Your task to perform on an android device: check android version Image 0: 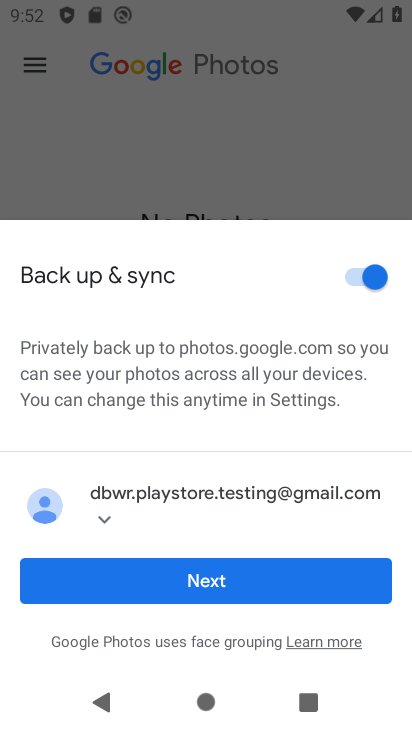
Step 0: press home button
Your task to perform on an android device: check android version Image 1: 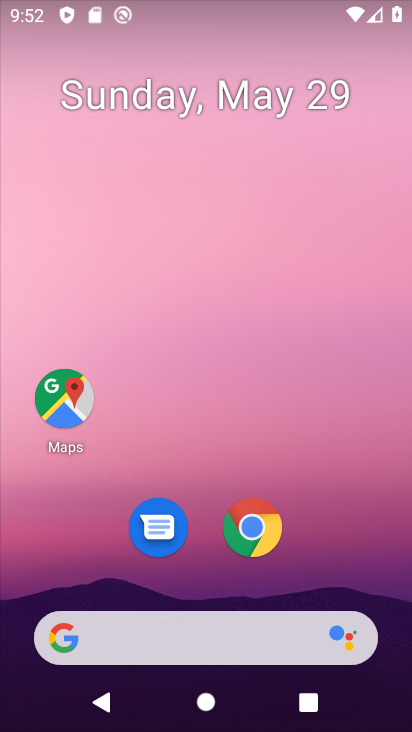
Step 1: drag from (343, 515) to (289, 190)
Your task to perform on an android device: check android version Image 2: 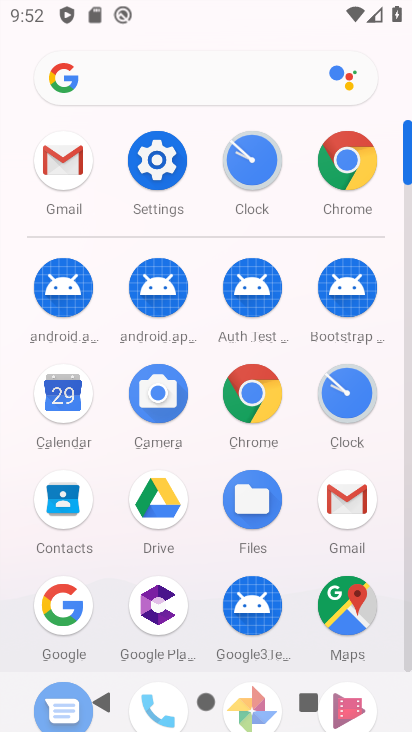
Step 2: click (155, 167)
Your task to perform on an android device: check android version Image 3: 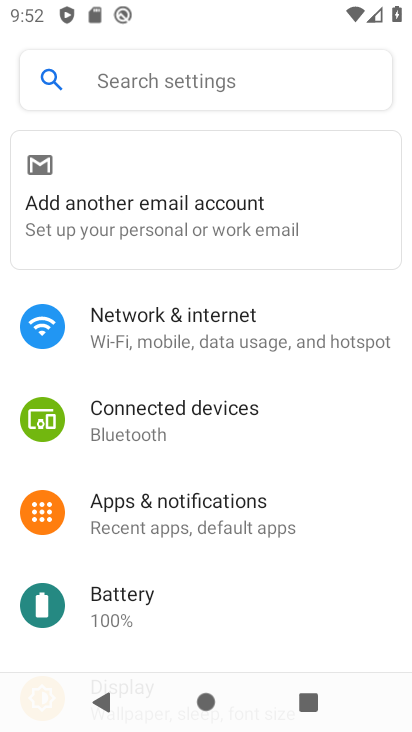
Step 3: drag from (239, 497) to (290, 86)
Your task to perform on an android device: check android version Image 4: 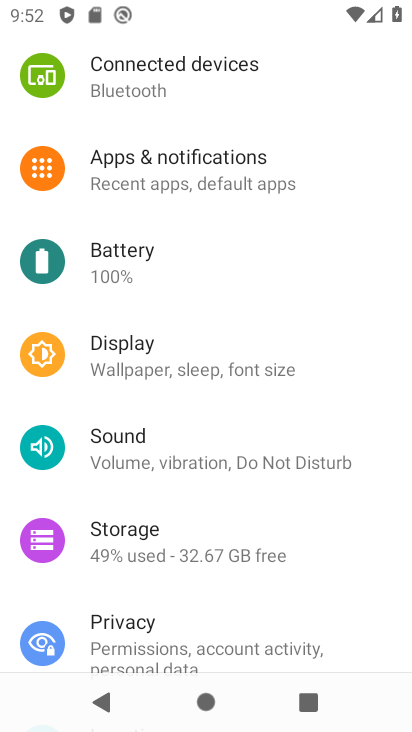
Step 4: drag from (207, 416) to (264, 98)
Your task to perform on an android device: check android version Image 5: 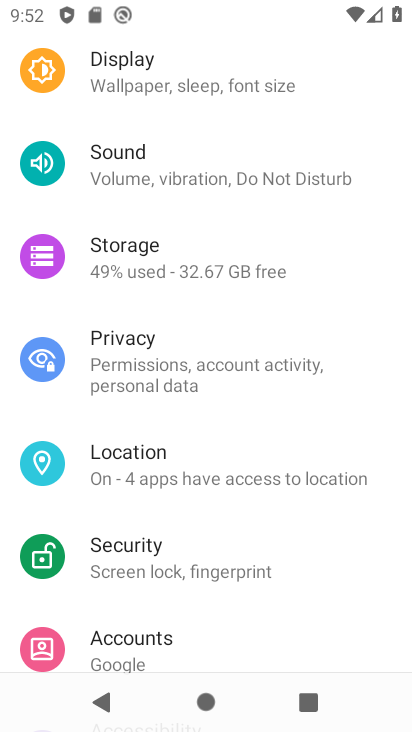
Step 5: drag from (263, 461) to (229, 122)
Your task to perform on an android device: check android version Image 6: 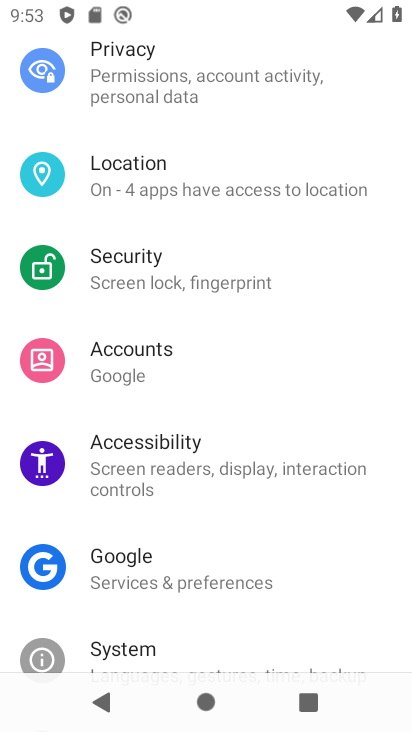
Step 6: drag from (300, 544) to (317, 200)
Your task to perform on an android device: check android version Image 7: 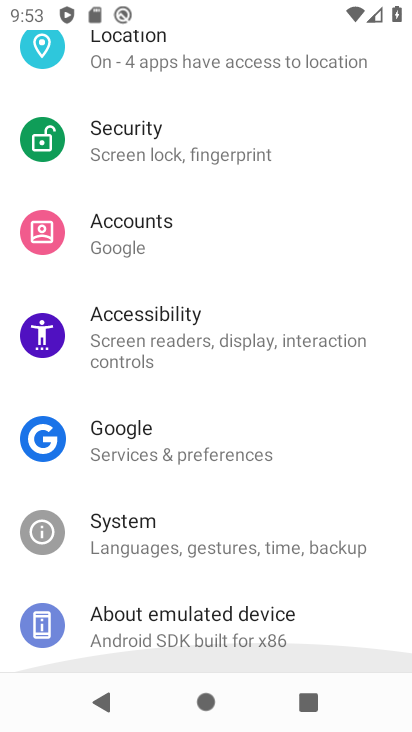
Step 7: click (317, 195)
Your task to perform on an android device: check android version Image 8: 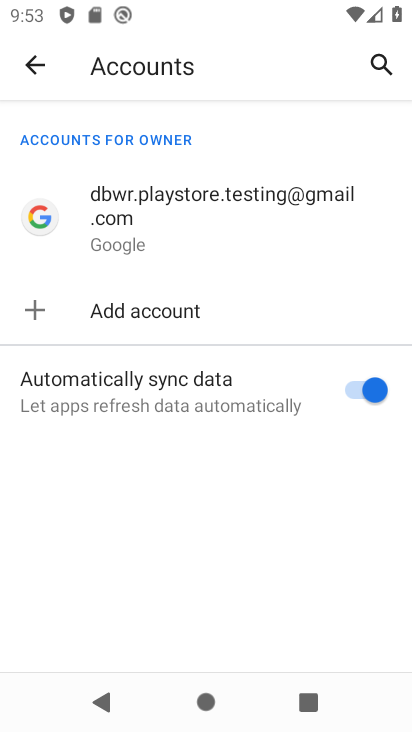
Step 8: click (39, 53)
Your task to perform on an android device: check android version Image 9: 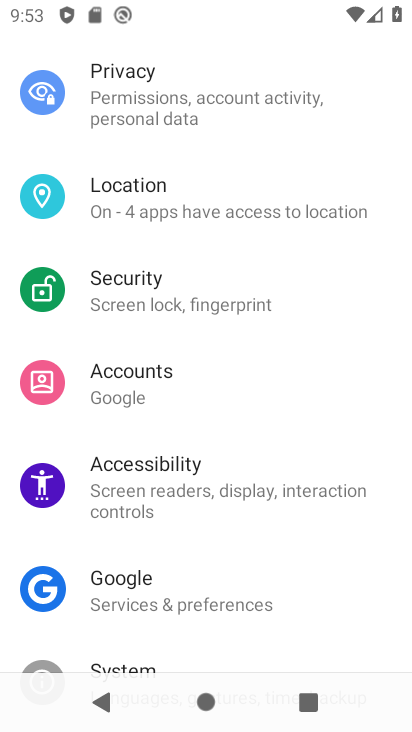
Step 9: drag from (166, 627) to (230, 151)
Your task to perform on an android device: check android version Image 10: 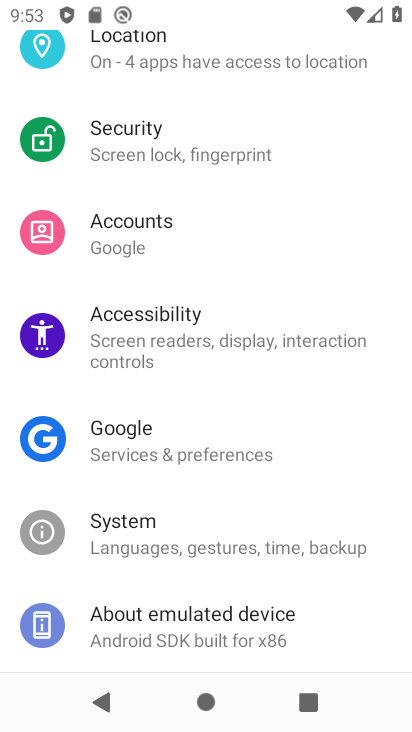
Step 10: click (171, 638)
Your task to perform on an android device: check android version Image 11: 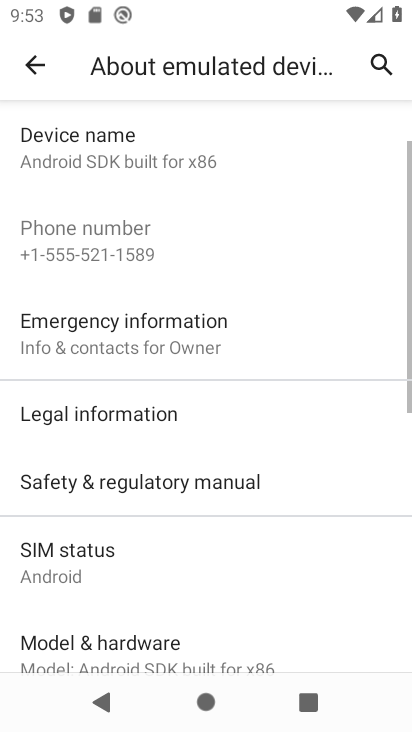
Step 11: drag from (323, 569) to (347, 47)
Your task to perform on an android device: check android version Image 12: 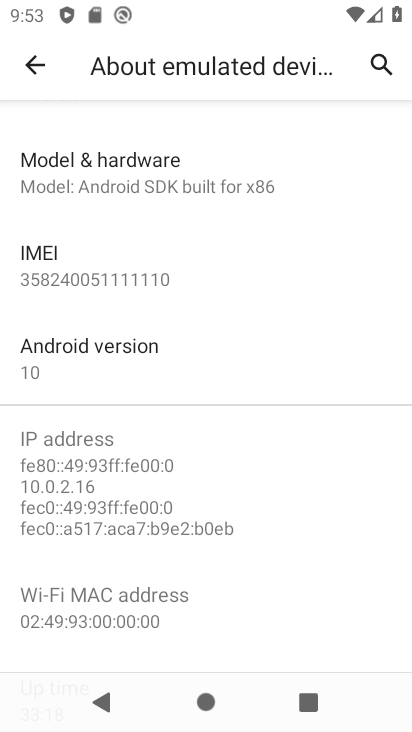
Step 12: click (145, 357)
Your task to perform on an android device: check android version Image 13: 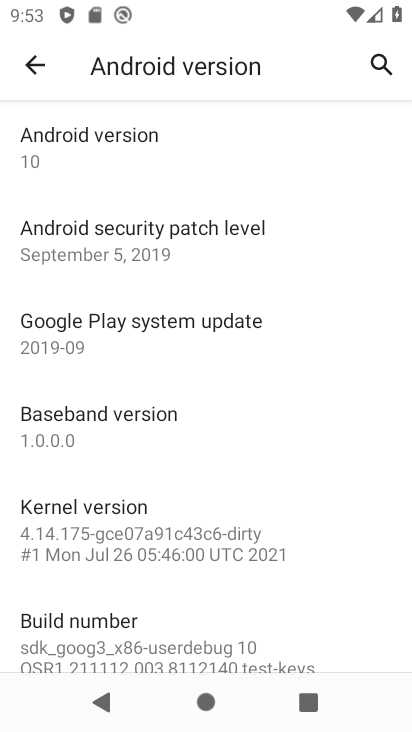
Step 13: task complete